Your task to perform on an android device: Open Chrome and go to settings Image 0: 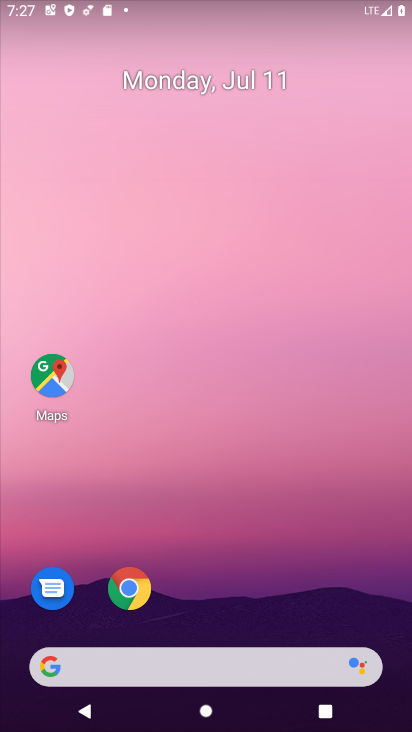
Step 0: drag from (376, 643) to (34, 188)
Your task to perform on an android device: Open Chrome and go to settings Image 1: 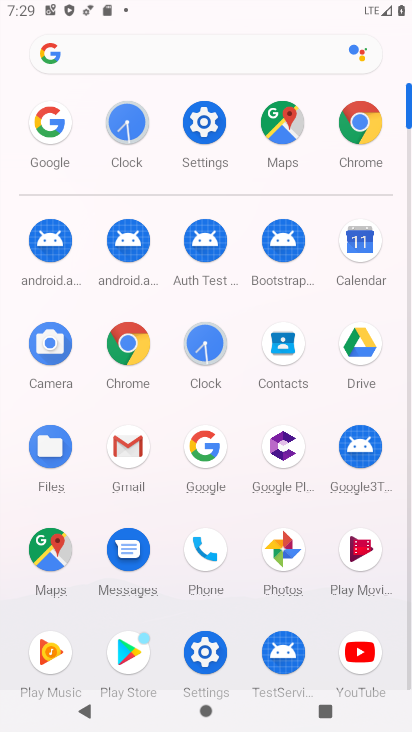
Step 1: click (140, 348)
Your task to perform on an android device: Open Chrome and go to settings Image 2: 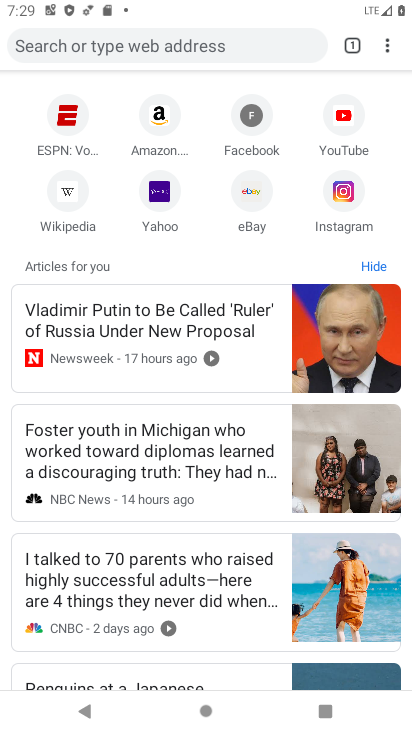
Step 2: click (387, 44)
Your task to perform on an android device: Open Chrome and go to settings Image 3: 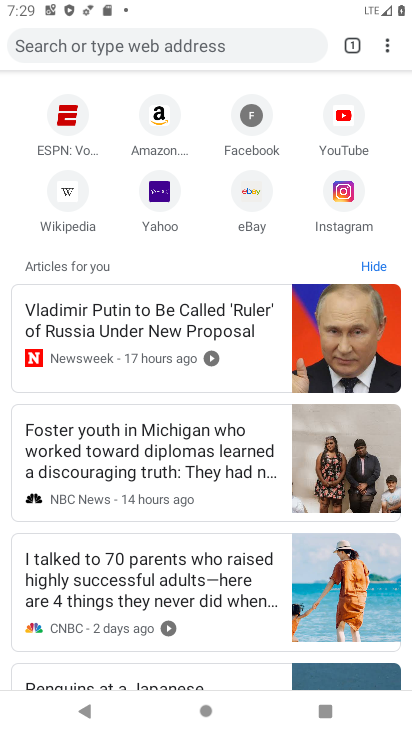
Step 3: click (385, 35)
Your task to perform on an android device: Open Chrome and go to settings Image 4: 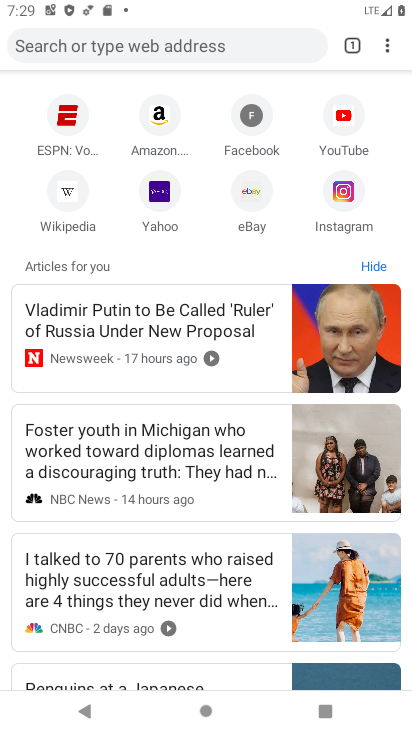
Step 4: click (385, 35)
Your task to perform on an android device: Open Chrome and go to settings Image 5: 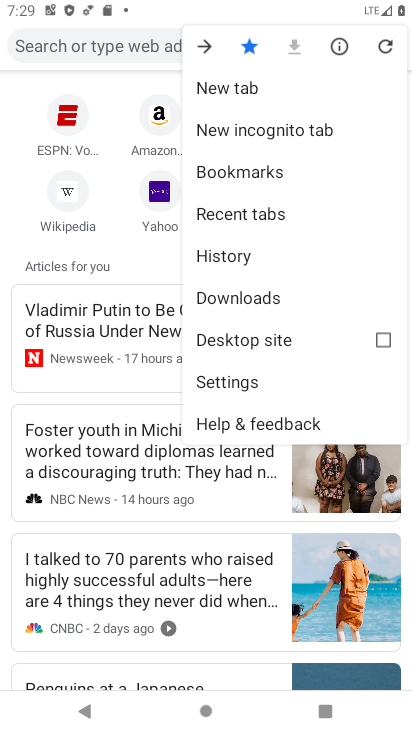
Step 5: click (263, 379)
Your task to perform on an android device: Open Chrome and go to settings Image 6: 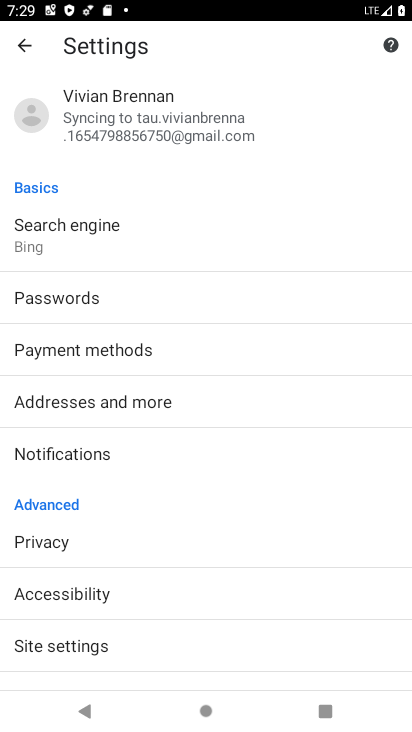
Step 6: task complete